Your task to perform on an android device: Go to Amazon Image 0: 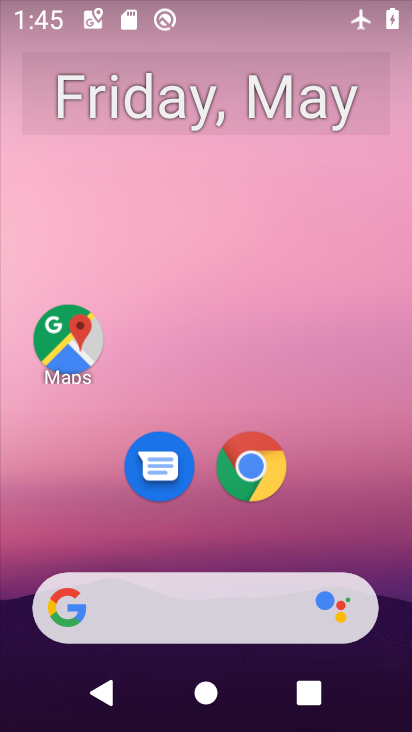
Step 0: click (252, 487)
Your task to perform on an android device: Go to Amazon Image 1: 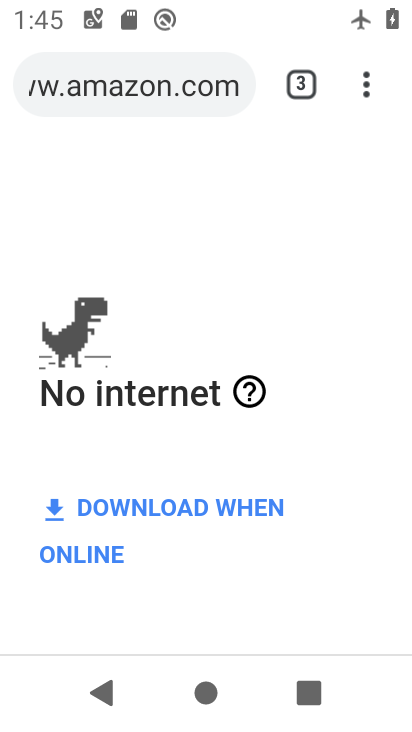
Step 1: task complete